Your task to perform on an android device: uninstall "PlayWell" Image 0: 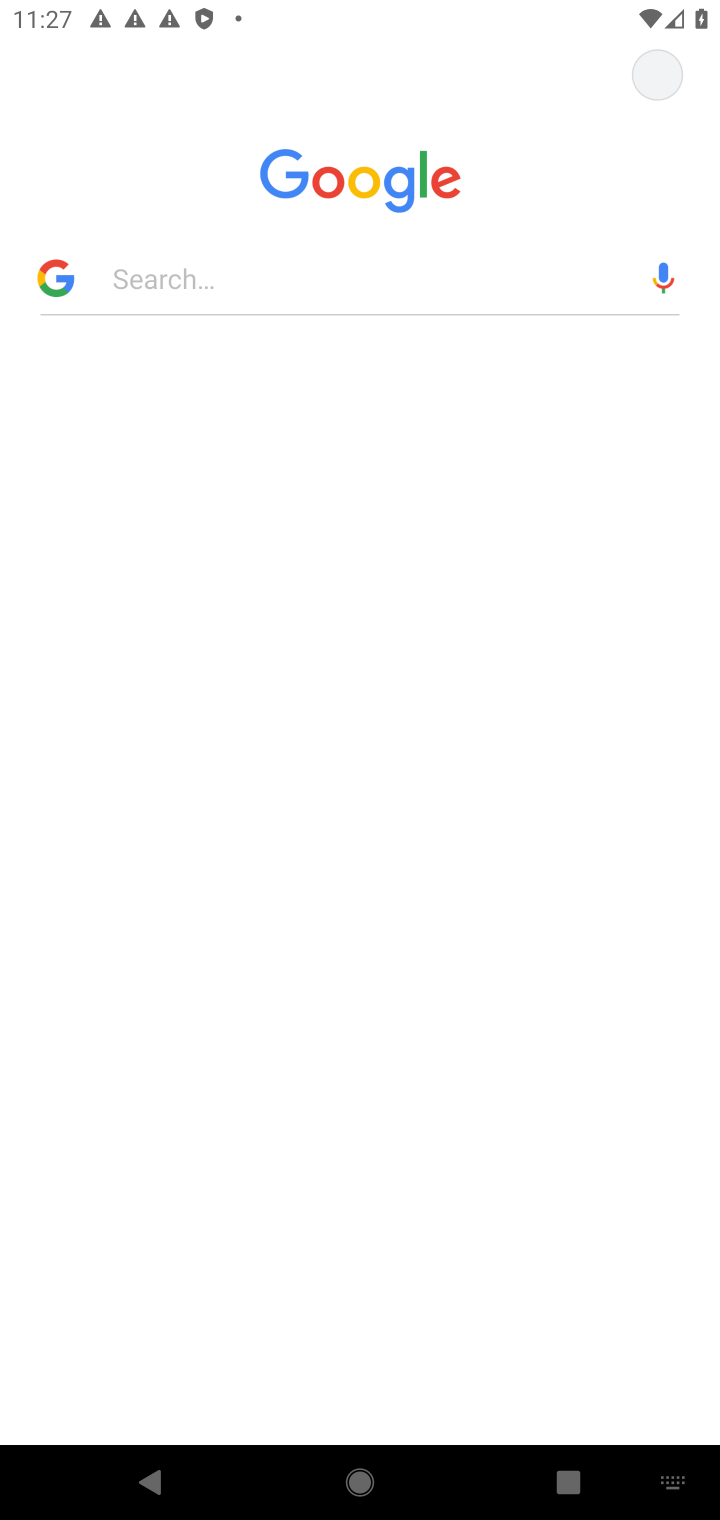
Step 0: press back button
Your task to perform on an android device: uninstall "PlayWell" Image 1: 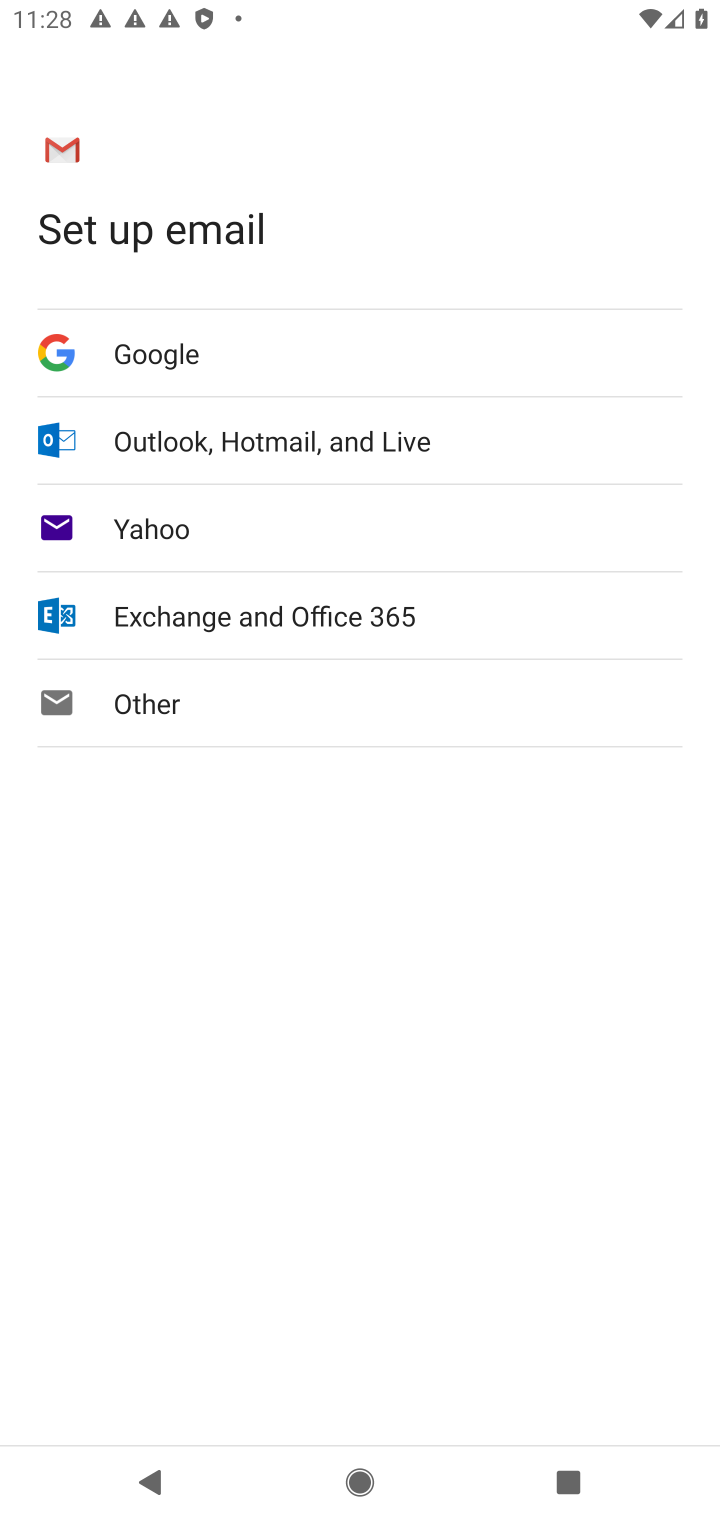
Step 1: press home button
Your task to perform on an android device: uninstall "PlayWell" Image 2: 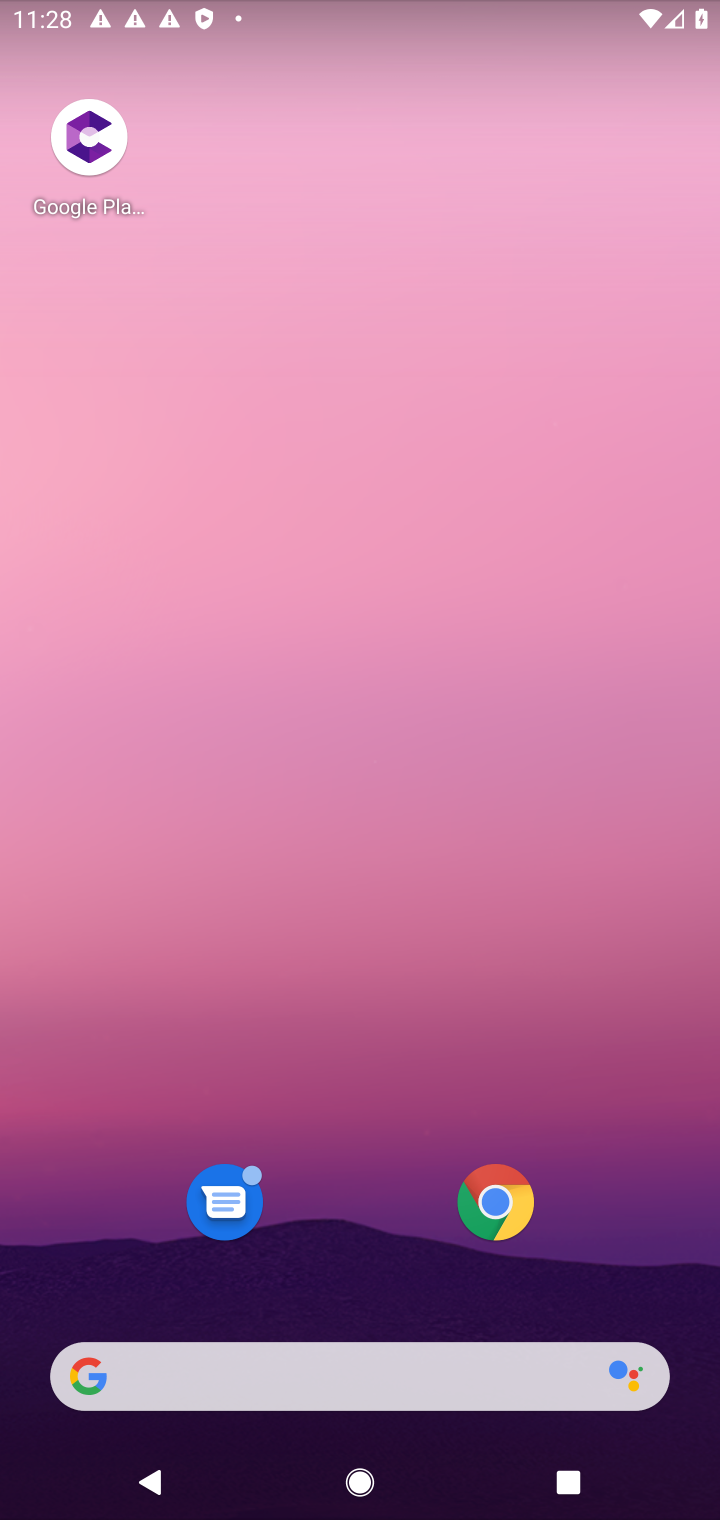
Step 2: drag from (366, 1293) to (300, 397)
Your task to perform on an android device: uninstall "PlayWell" Image 3: 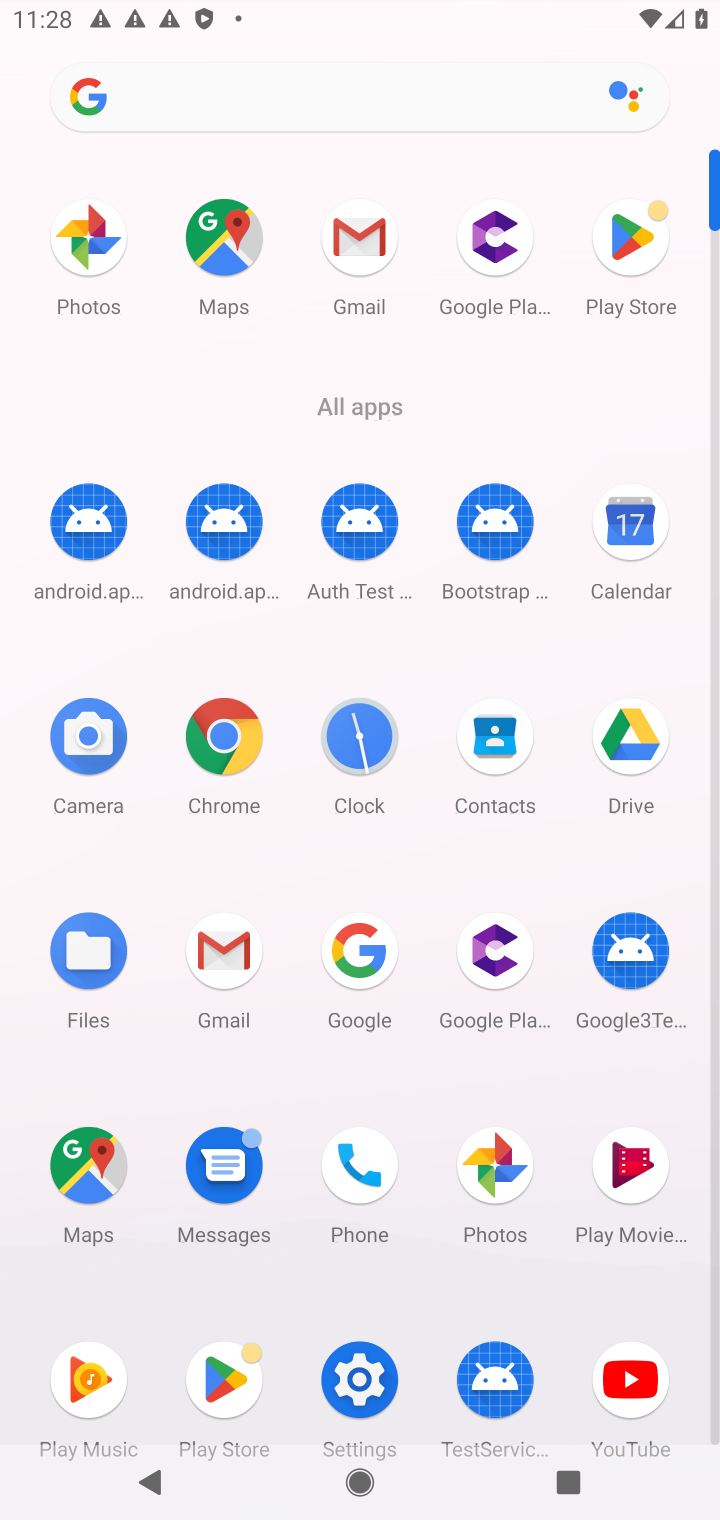
Step 3: click (245, 1374)
Your task to perform on an android device: uninstall "PlayWell" Image 4: 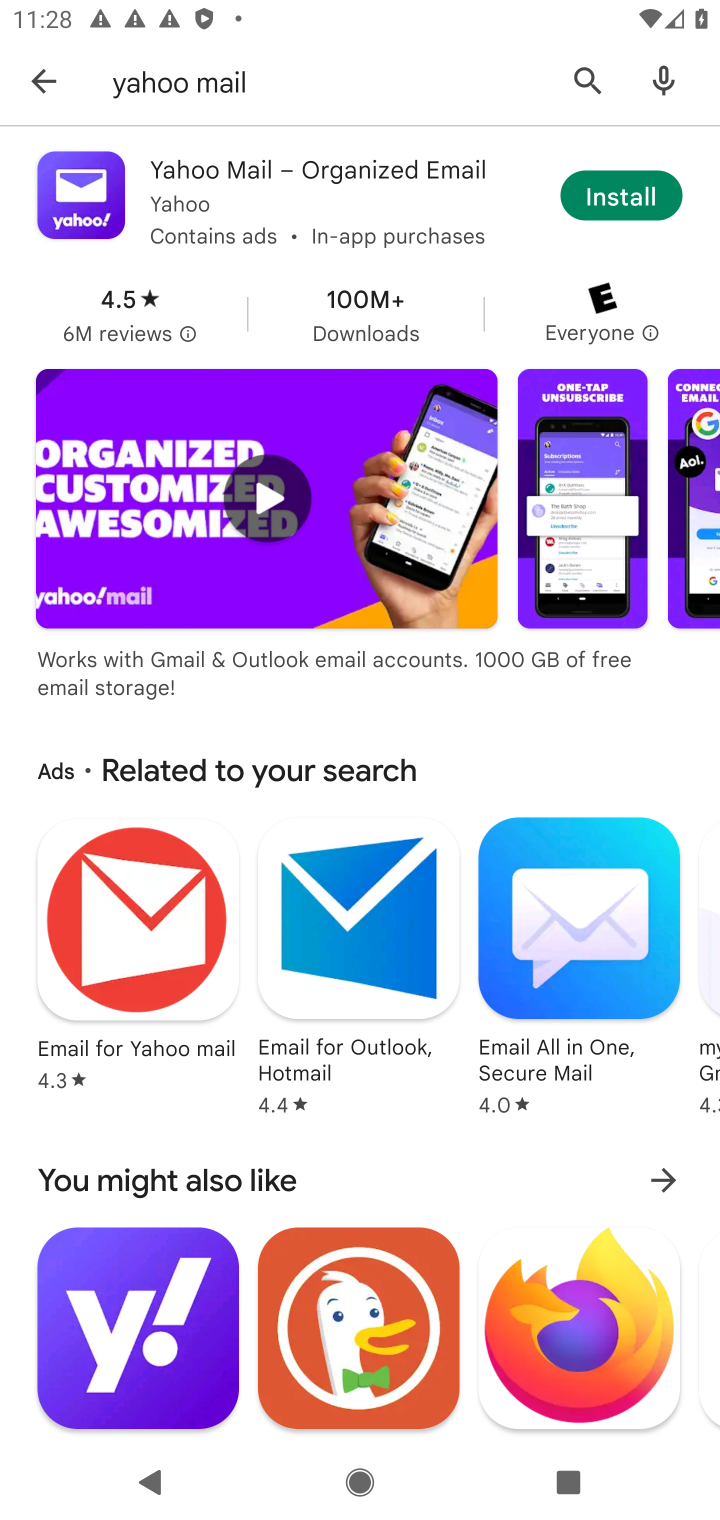
Step 4: click (31, 87)
Your task to perform on an android device: uninstall "PlayWell" Image 5: 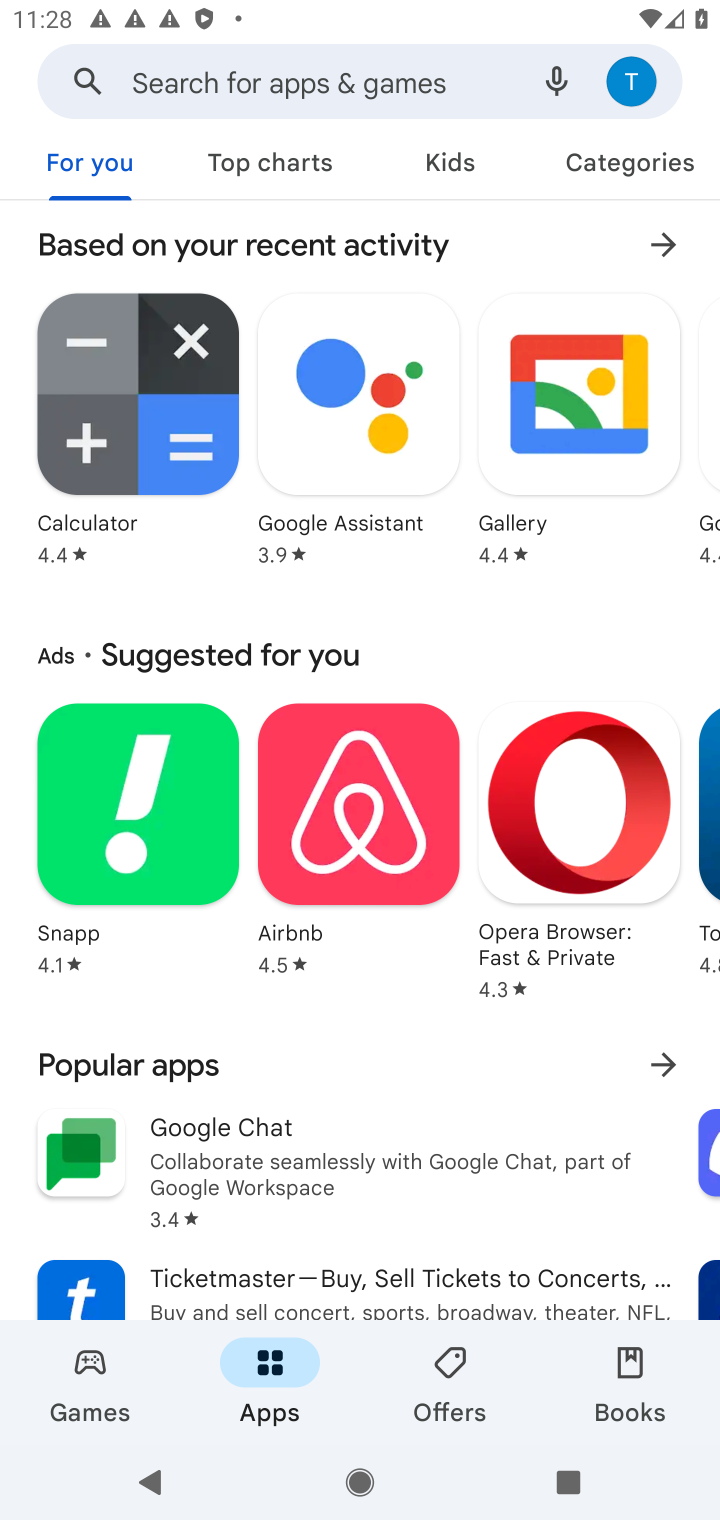
Step 5: click (178, 71)
Your task to perform on an android device: uninstall "PlayWell" Image 6: 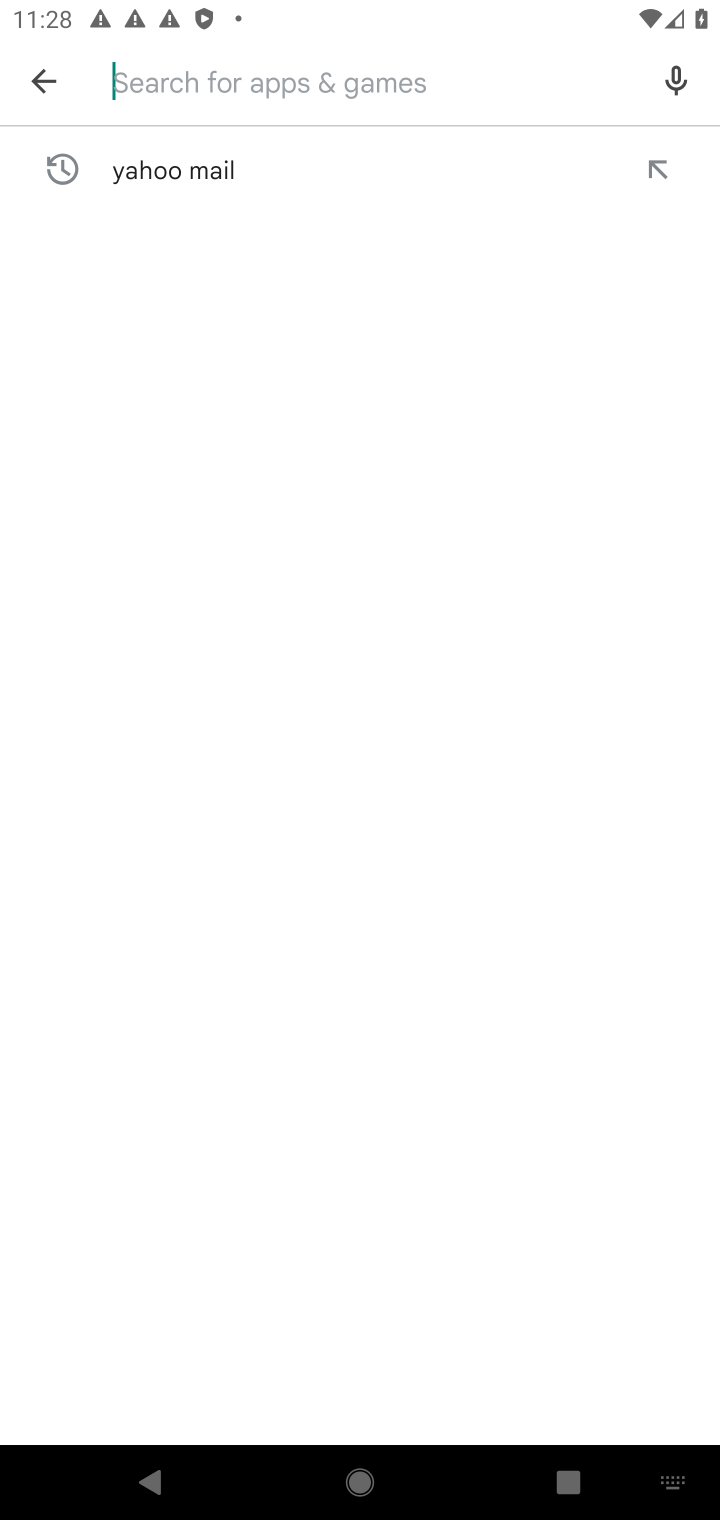
Step 6: type "PlayWel"
Your task to perform on an android device: uninstall "PlayWell" Image 7: 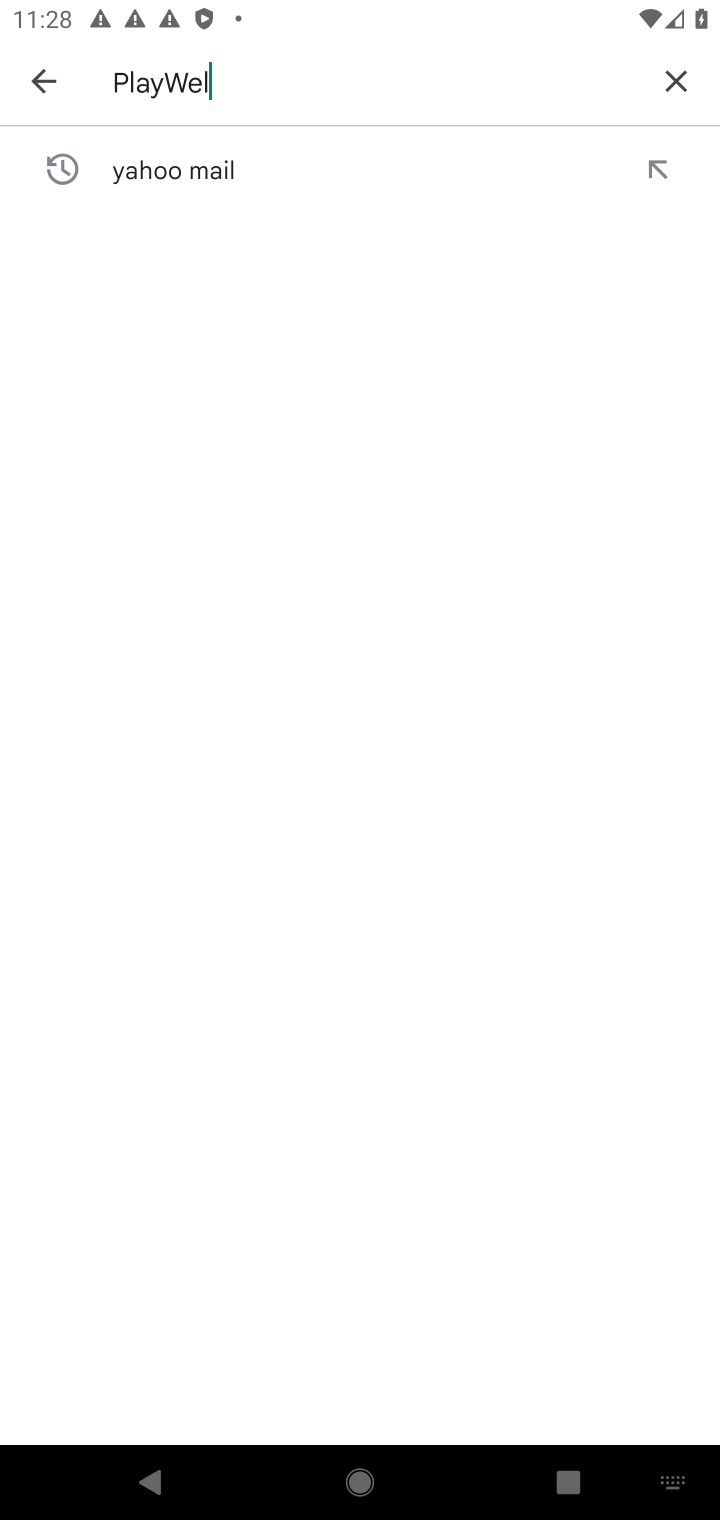
Step 7: type ""
Your task to perform on an android device: uninstall "PlayWell" Image 8: 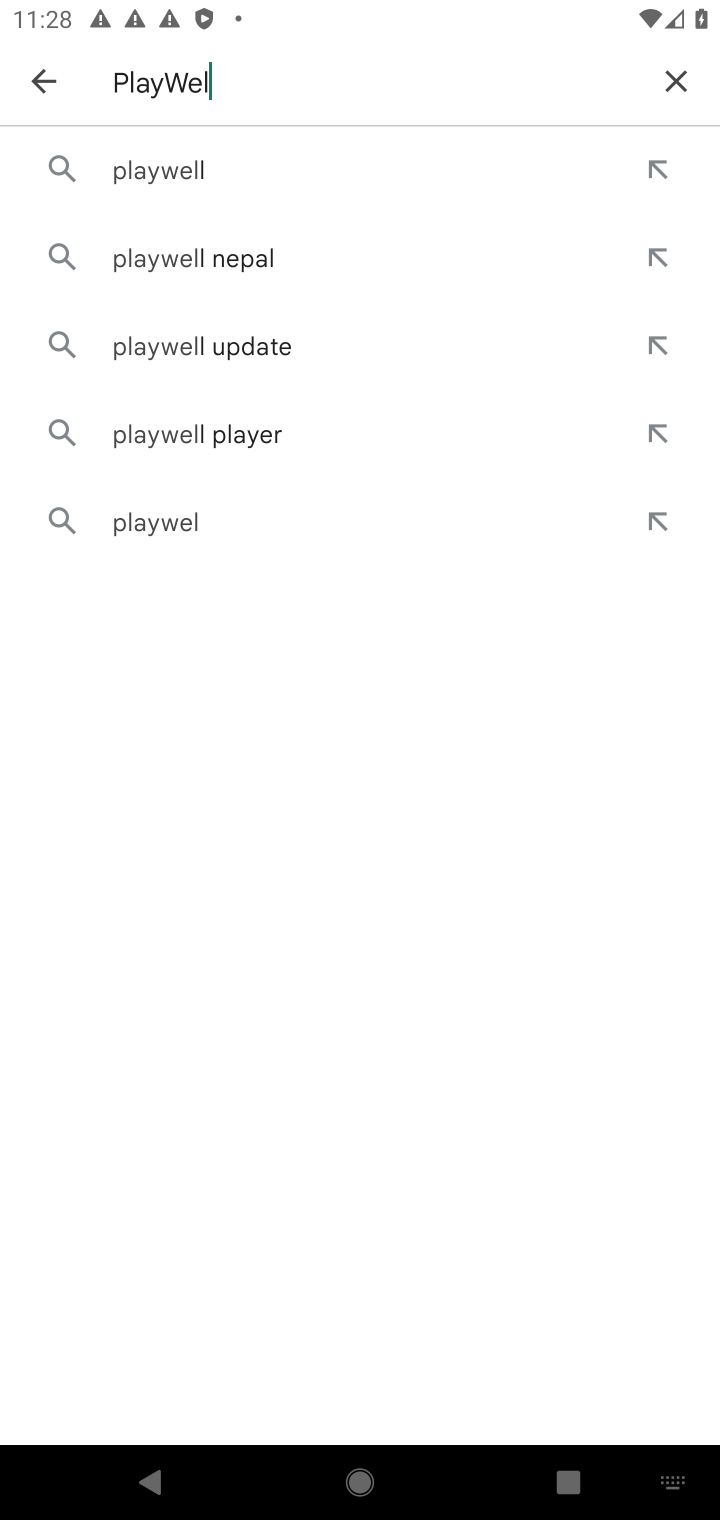
Step 8: click (118, 181)
Your task to perform on an android device: uninstall "PlayWell" Image 9: 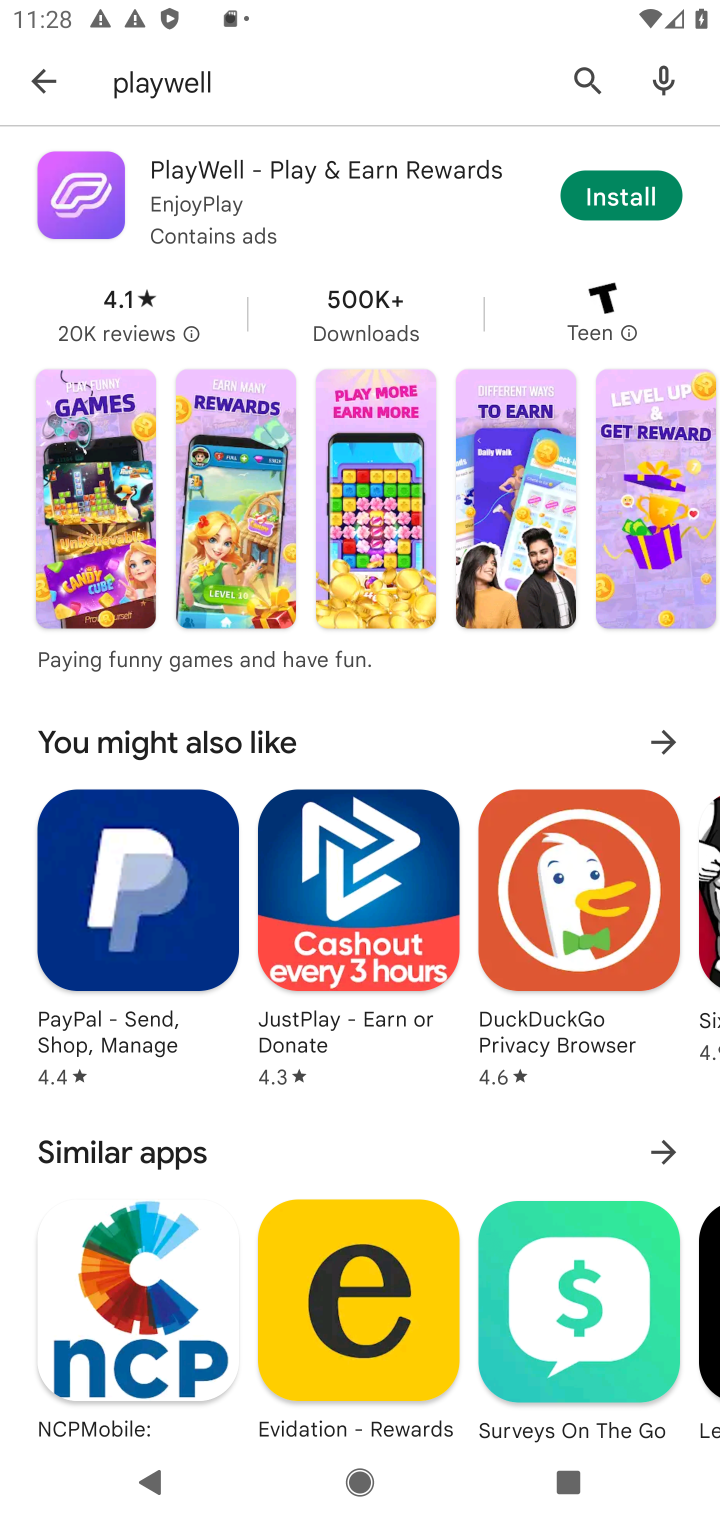
Step 9: click (234, 195)
Your task to perform on an android device: uninstall "PlayWell" Image 10: 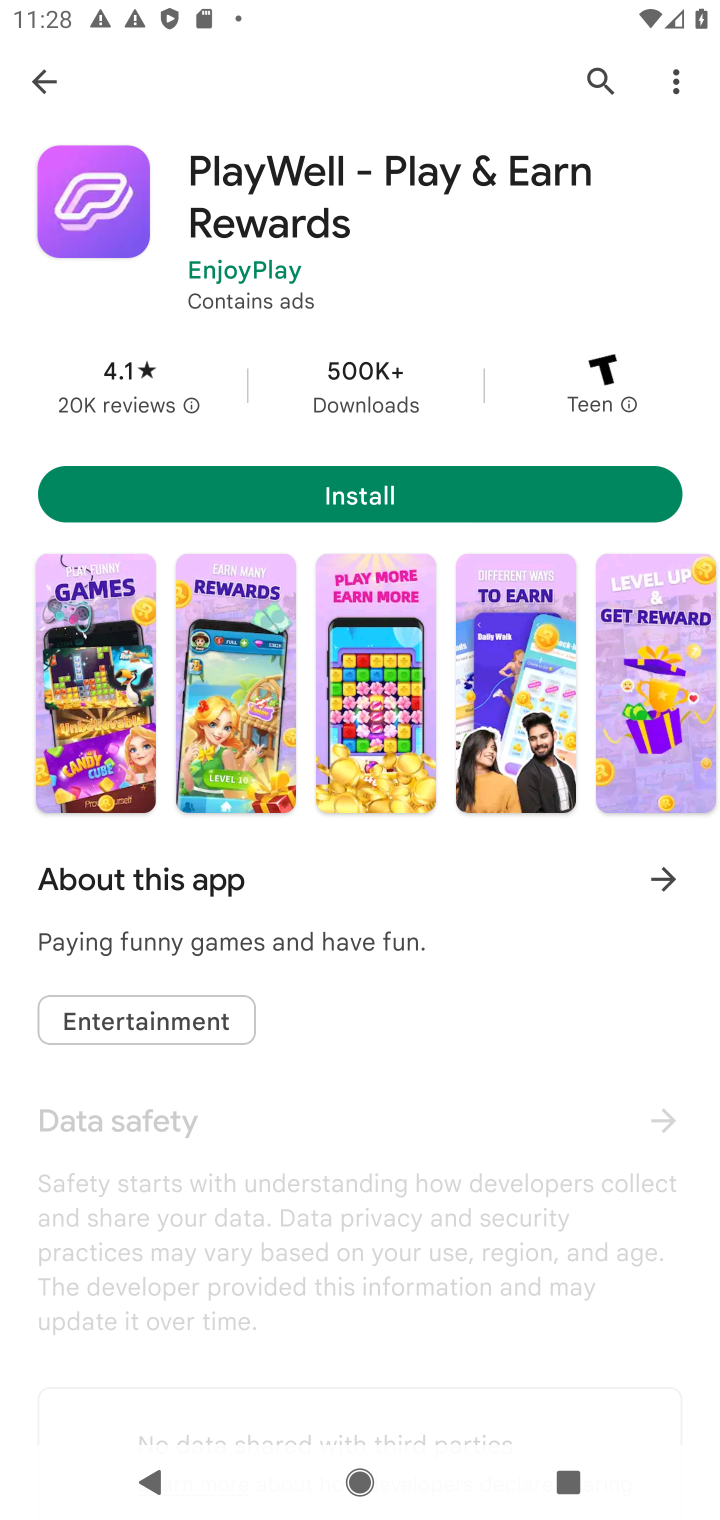
Step 10: task complete